Your task to perform on an android device: open app "LiveIn - Share Your Moment" Image 0: 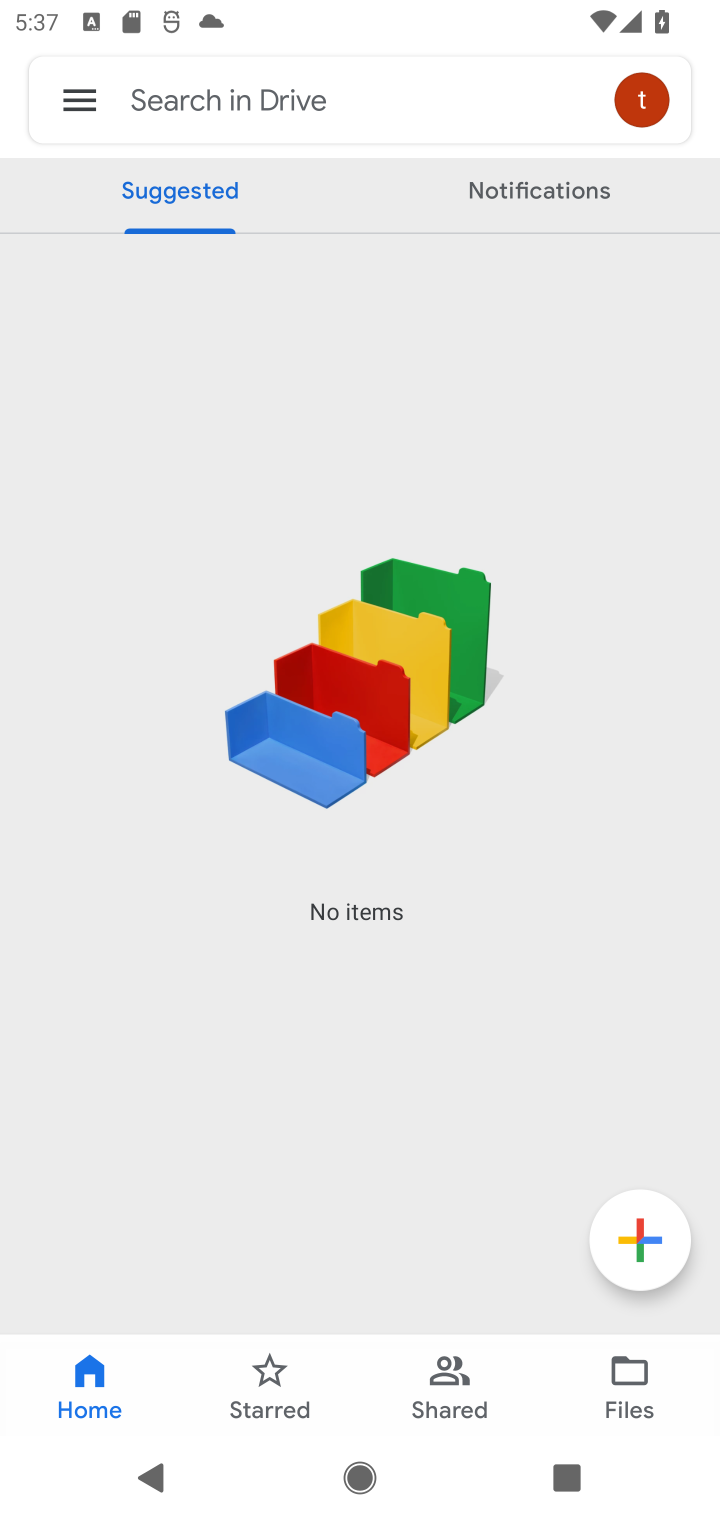
Step 0: press home button
Your task to perform on an android device: open app "LiveIn - Share Your Moment" Image 1: 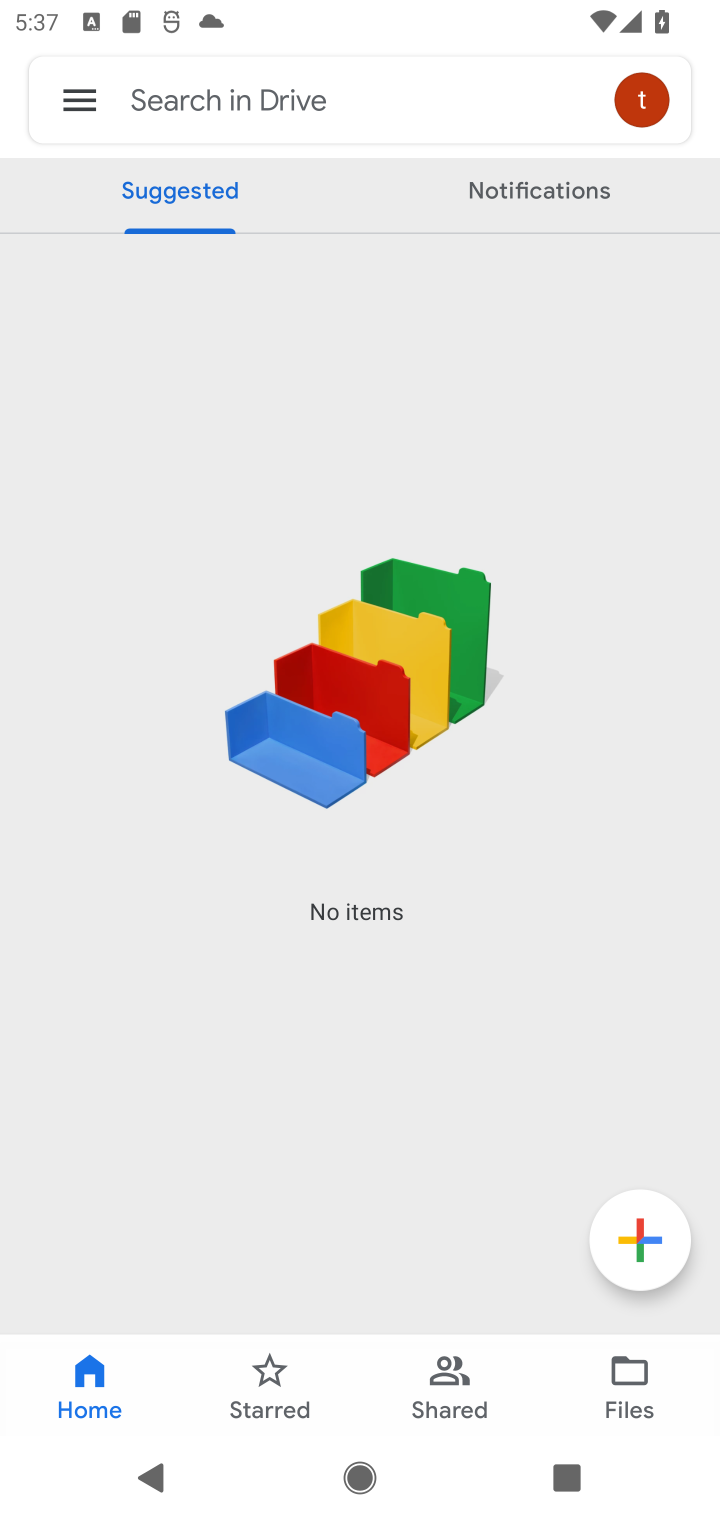
Step 1: press home button
Your task to perform on an android device: open app "LiveIn - Share Your Moment" Image 2: 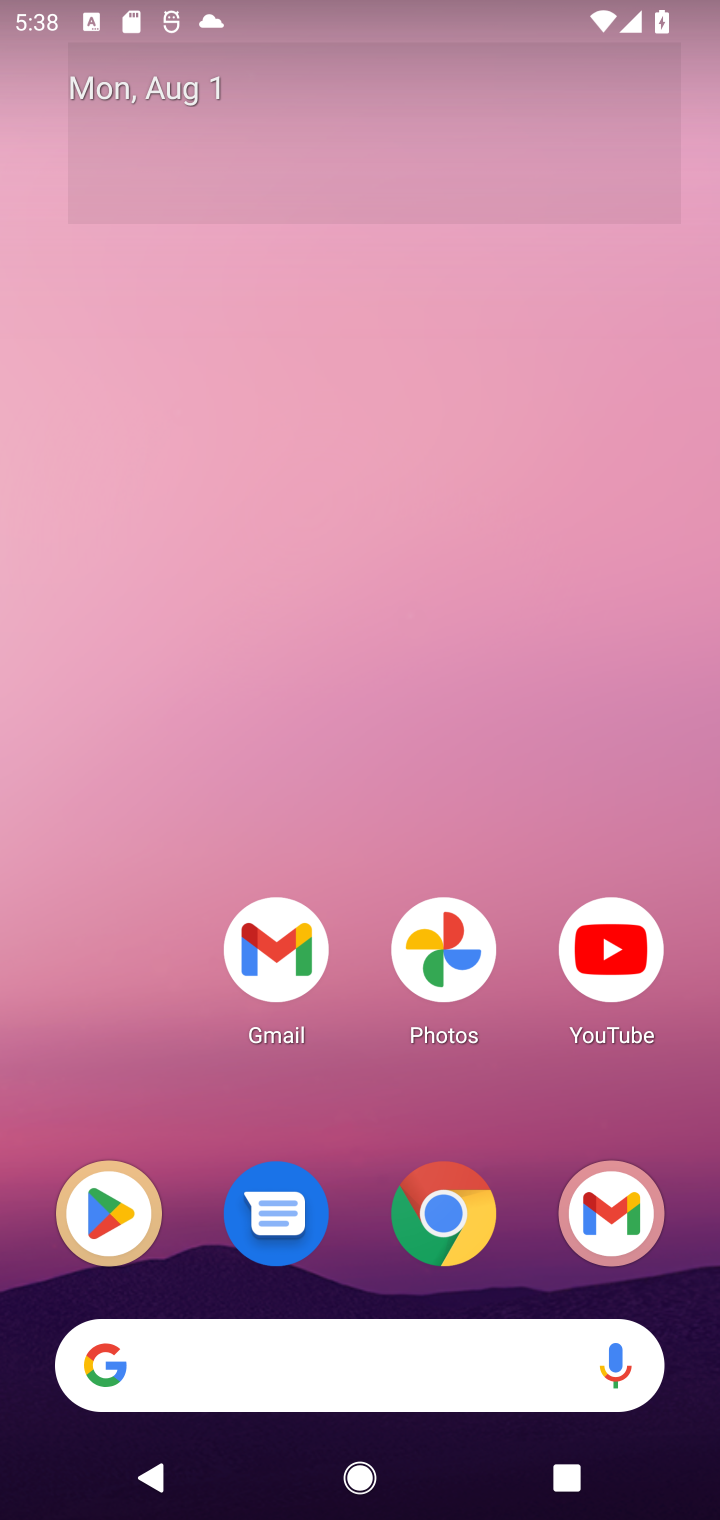
Step 2: drag from (536, 982) to (587, 17)
Your task to perform on an android device: open app "LiveIn - Share Your Moment" Image 3: 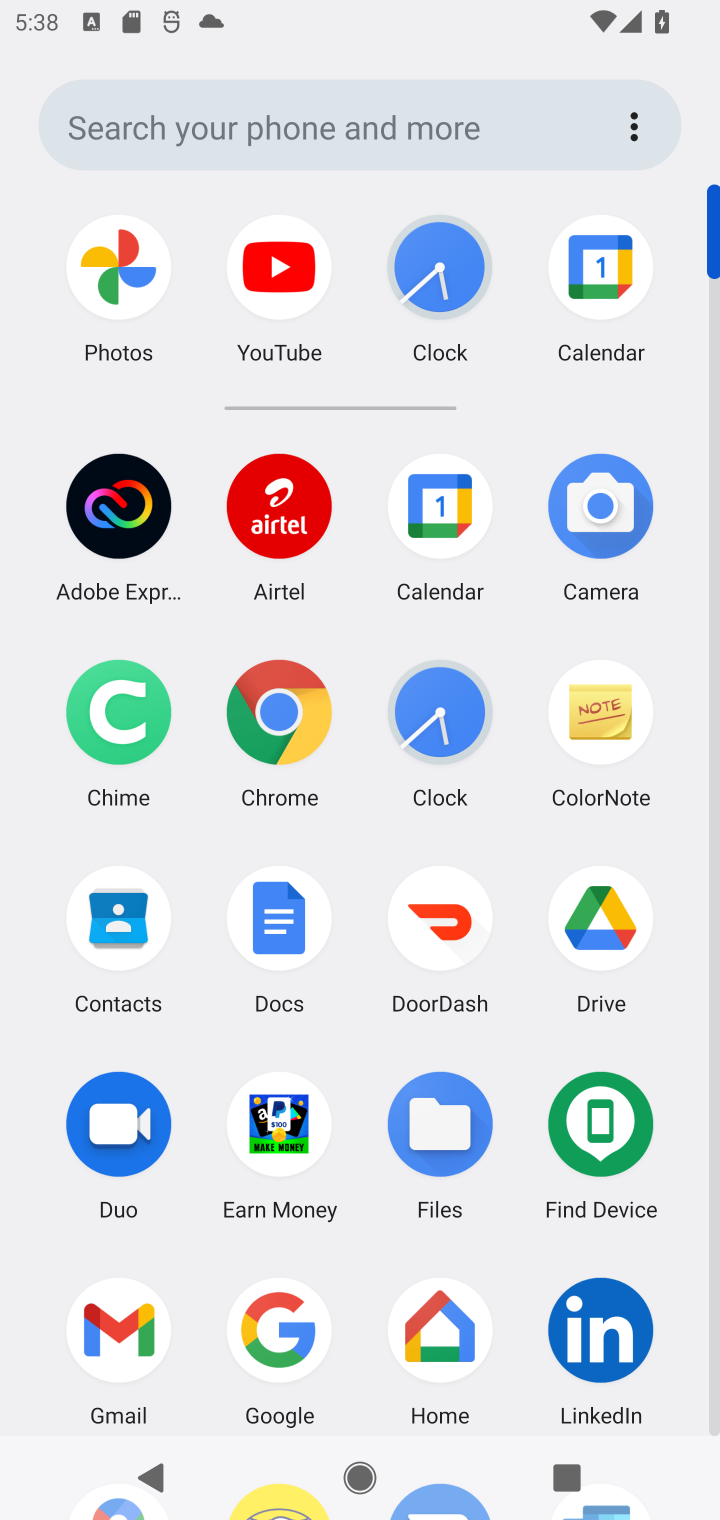
Step 3: drag from (347, 1273) to (407, 538)
Your task to perform on an android device: open app "LiveIn - Share Your Moment" Image 4: 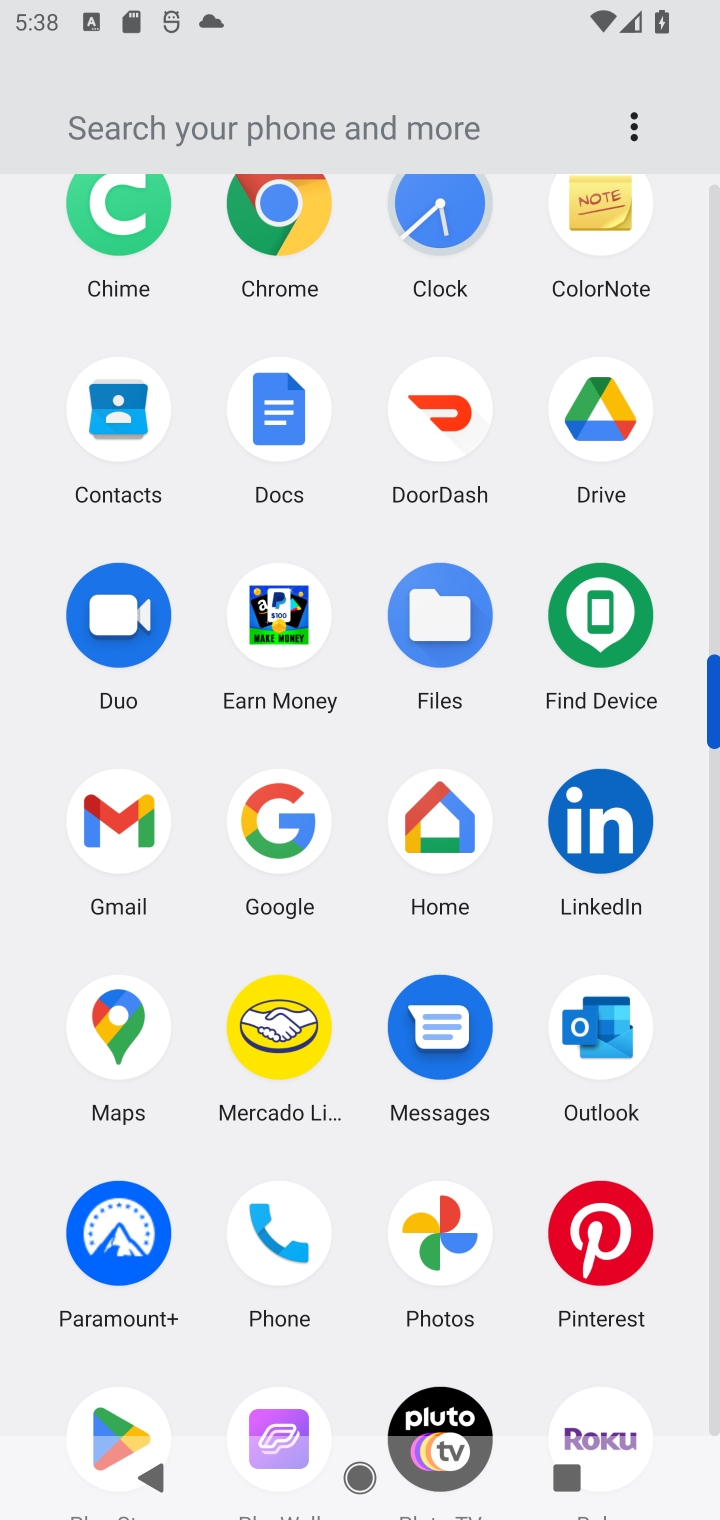
Step 4: click (130, 1396)
Your task to perform on an android device: open app "LiveIn - Share Your Moment" Image 5: 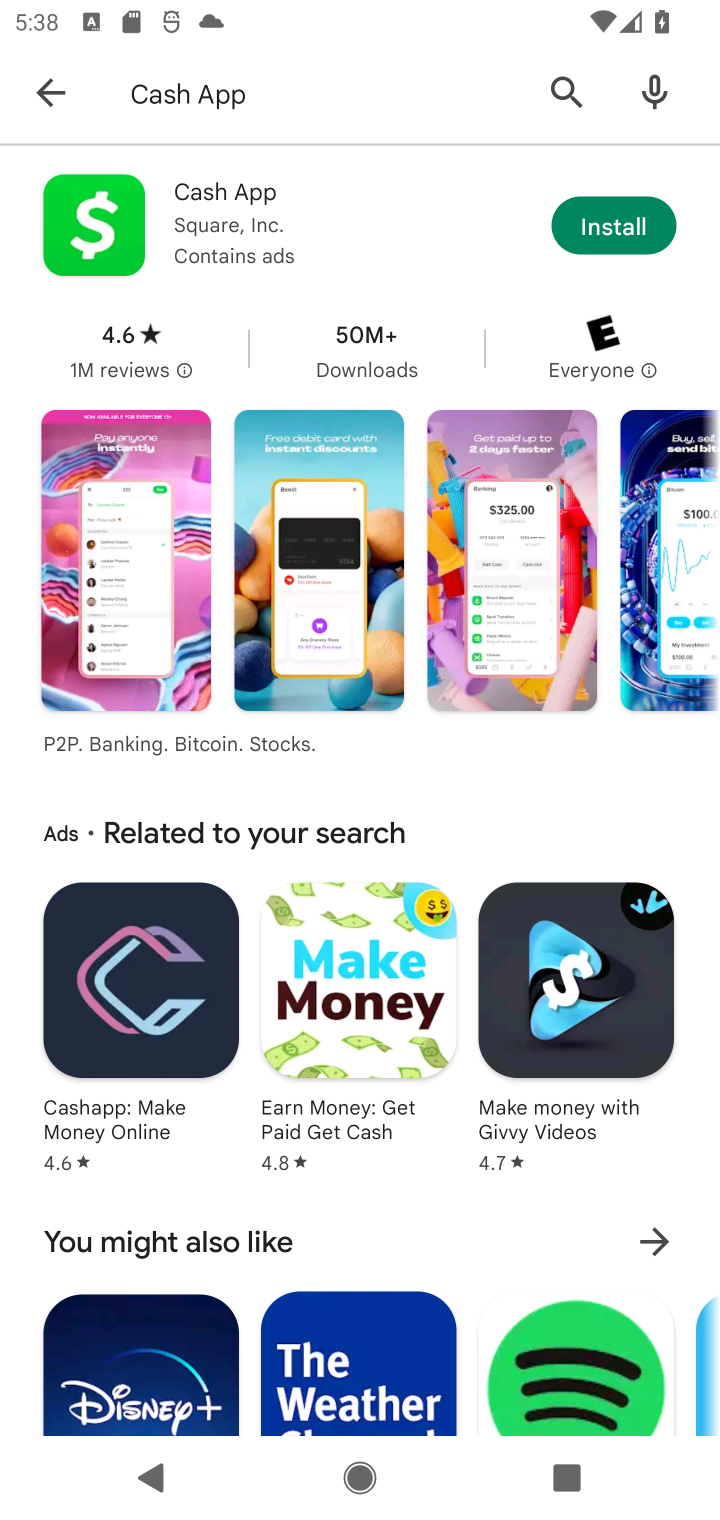
Step 5: click (415, 81)
Your task to perform on an android device: open app "LiveIn - Share Your Moment" Image 6: 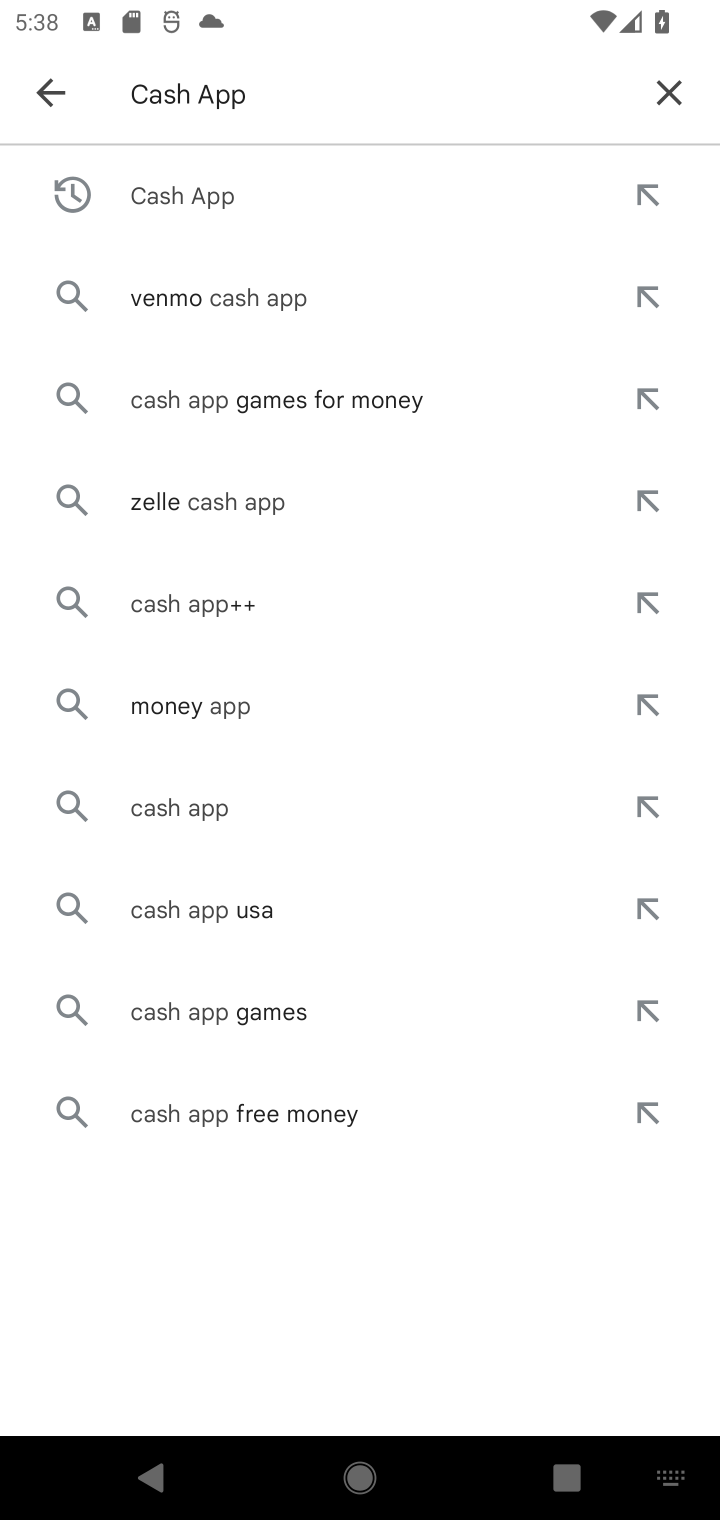
Step 6: click (677, 85)
Your task to perform on an android device: open app "LiveIn - Share Your Moment" Image 7: 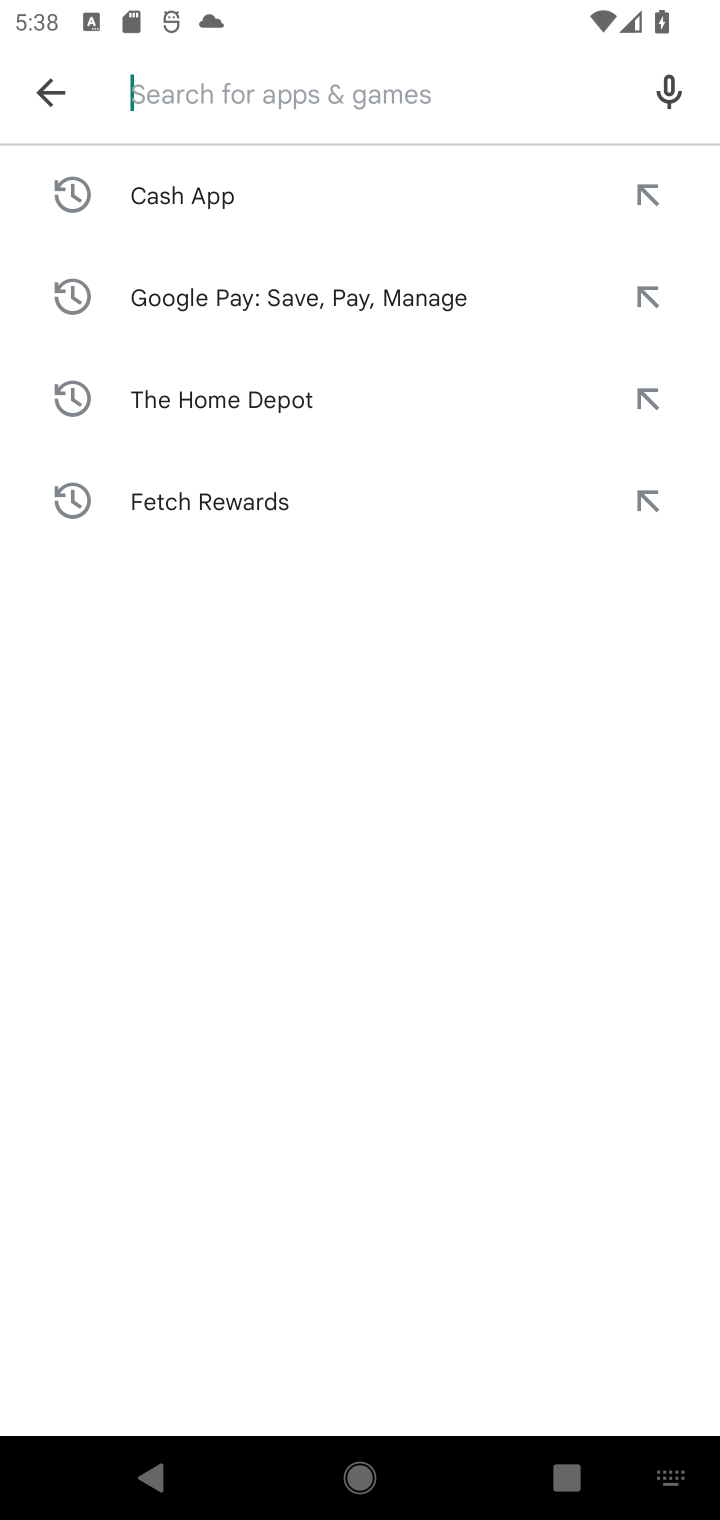
Step 7: type "Liveln - Share Your Moment"
Your task to perform on an android device: open app "LiveIn - Share Your Moment" Image 8: 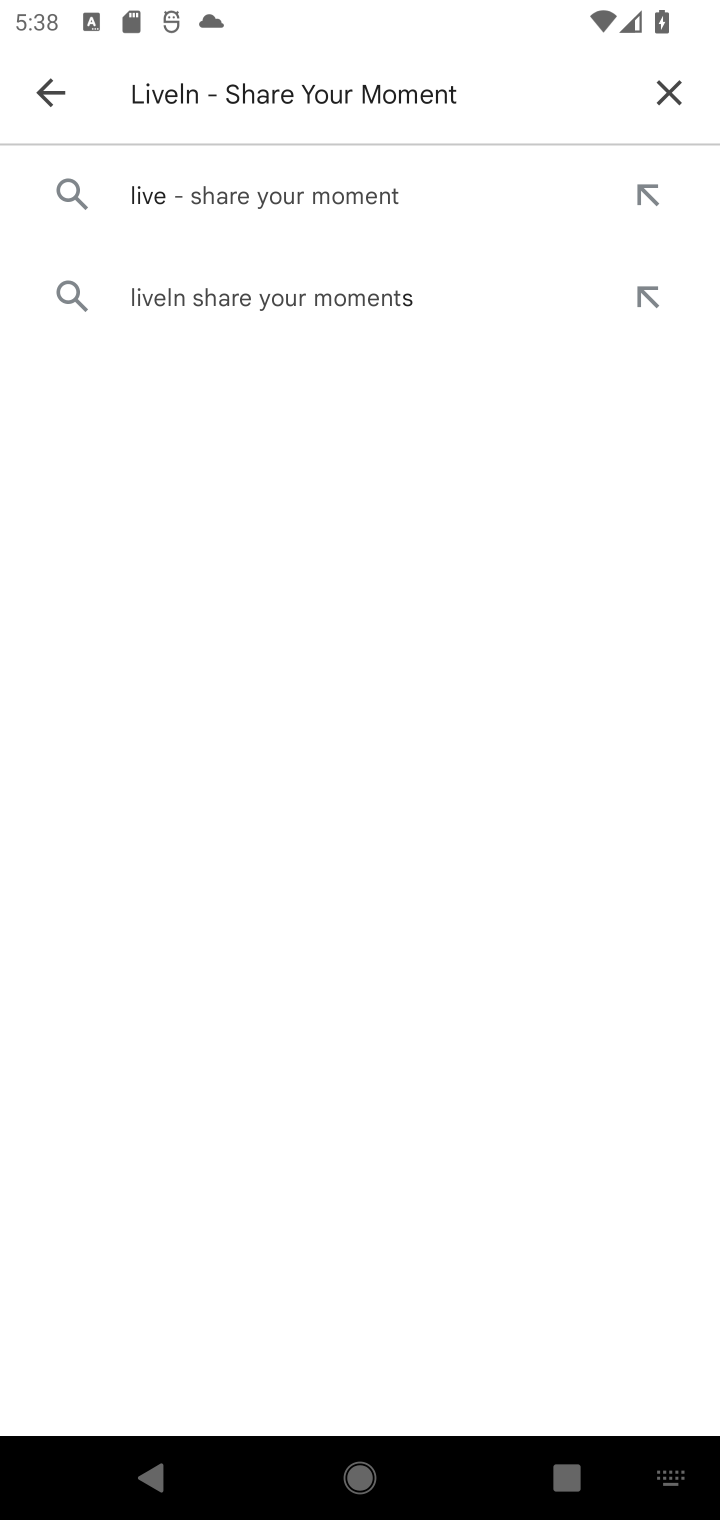
Step 8: press enter
Your task to perform on an android device: open app "LiveIn - Share Your Moment" Image 9: 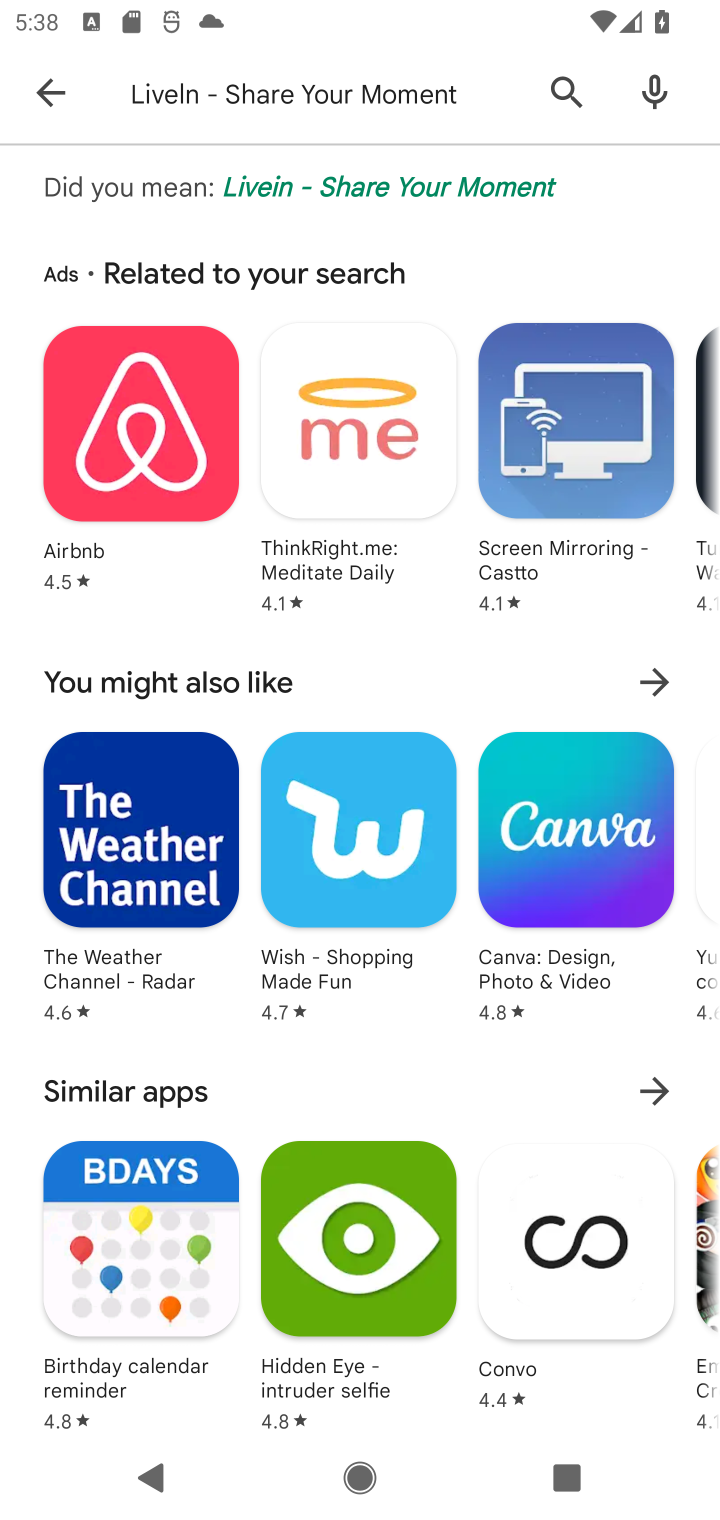
Step 9: click (465, 183)
Your task to perform on an android device: open app "LiveIn - Share Your Moment" Image 10: 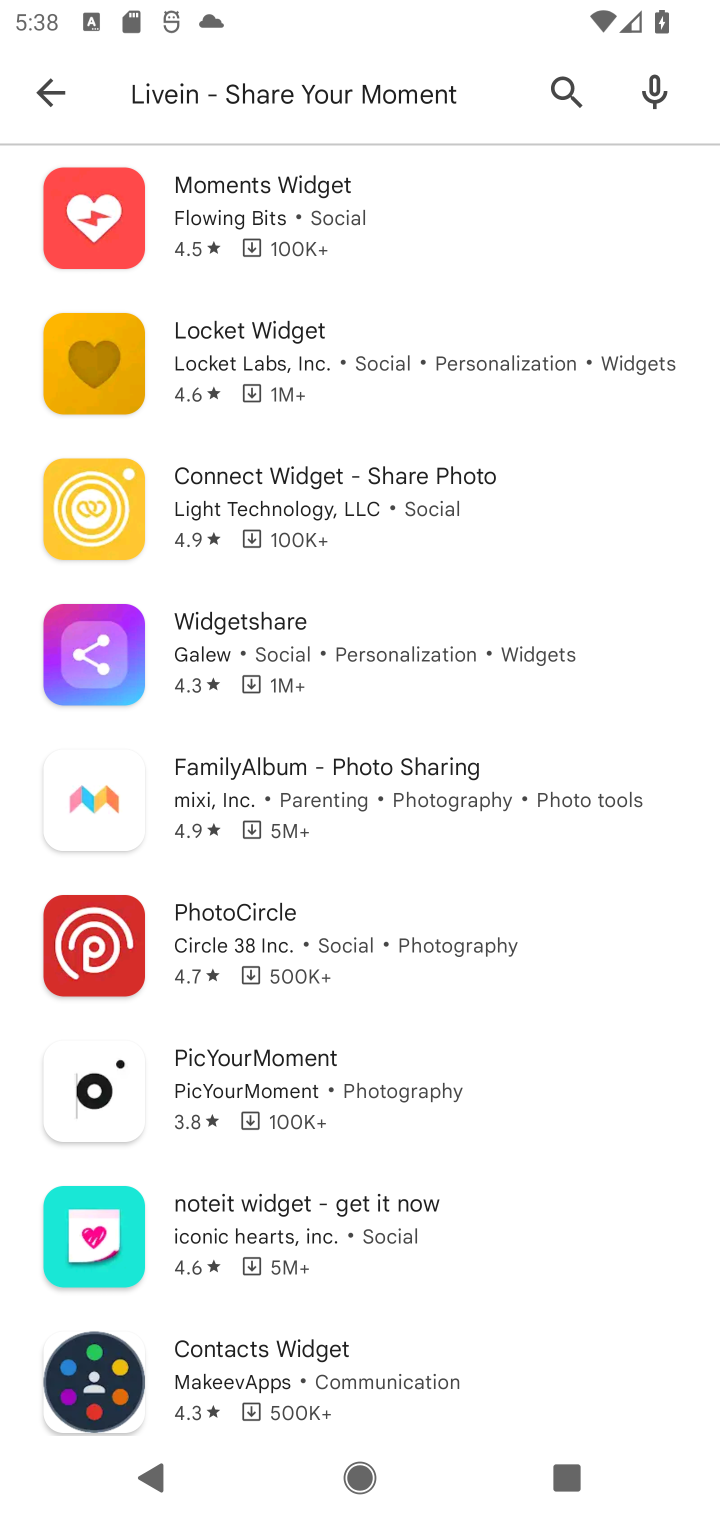
Step 10: task complete